Your task to perform on an android device: Open Google Maps Image 0: 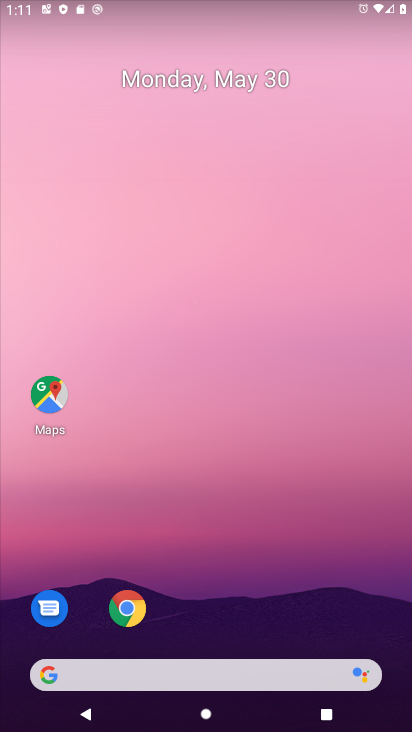
Step 0: click (57, 411)
Your task to perform on an android device: Open Google Maps Image 1: 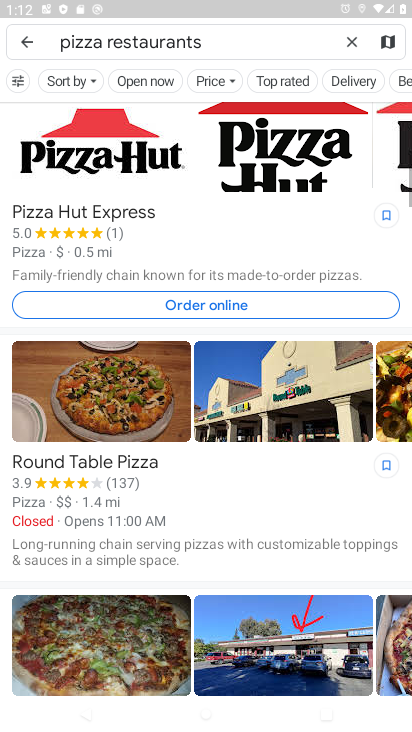
Step 1: click (359, 42)
Your task to perform on an android device: Open Google Maps Image 2: 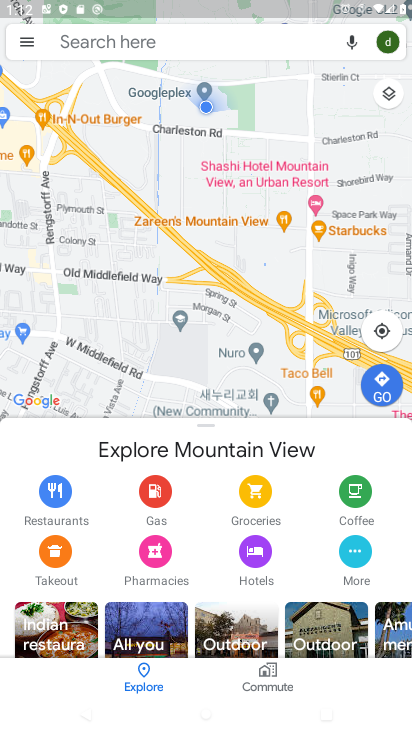
Step 2: task complete